Your task to perform on an android device: Search for Mexican restaurants on Maps Image 0: 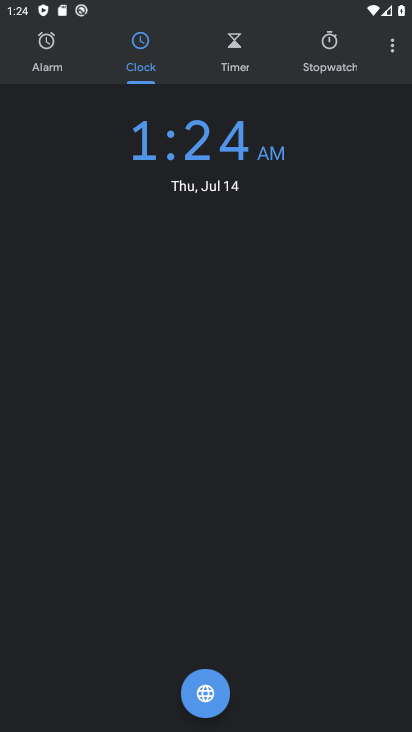
Step 0: press home button
Your task to perform on an android device: Search for Mexican restaurants on Maps Image 1: 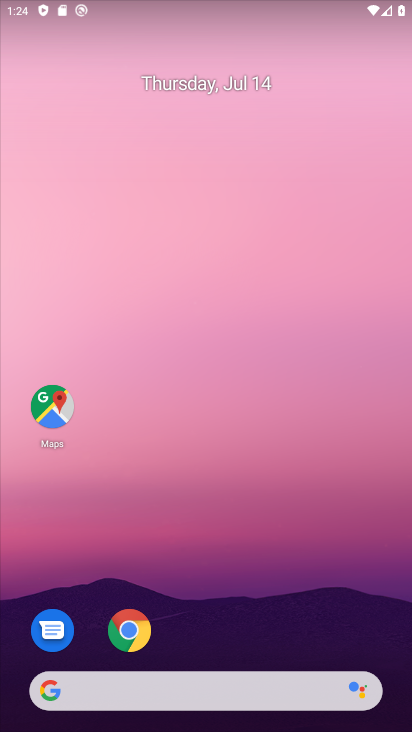
Step 1: click (50, 398)
Your task to perform on an android device: Search for Mexican restaurants on Maps Image 2: 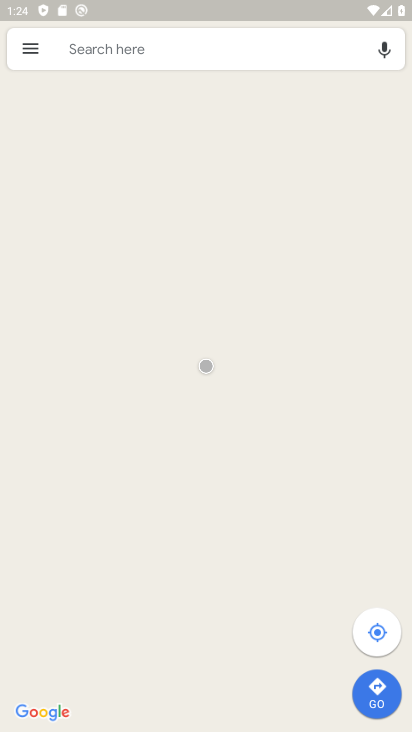
Step 2: click (239, 61)
Your task to perform on an android device: Search for Mexican restaurants on Maps Image 3: 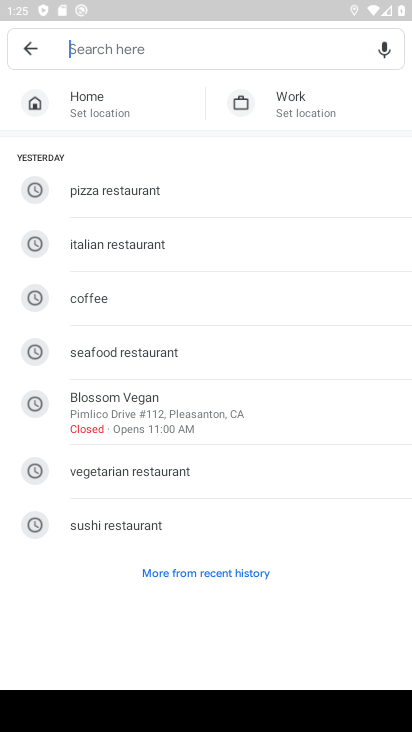
Step 3: type "mexican restaurants"
Your task to perform on an android device: Search for Mexican restaurants on Maps Image 4: 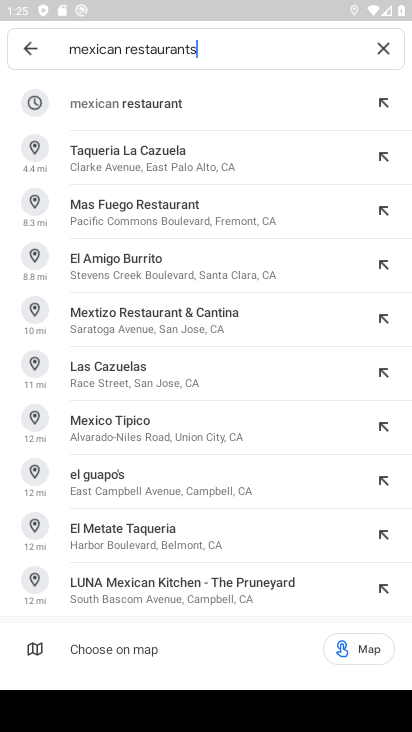
Step 4: click (158, 101)
Your task to perform on an android device: Search for Mexican restaurants on Maps Image 5: 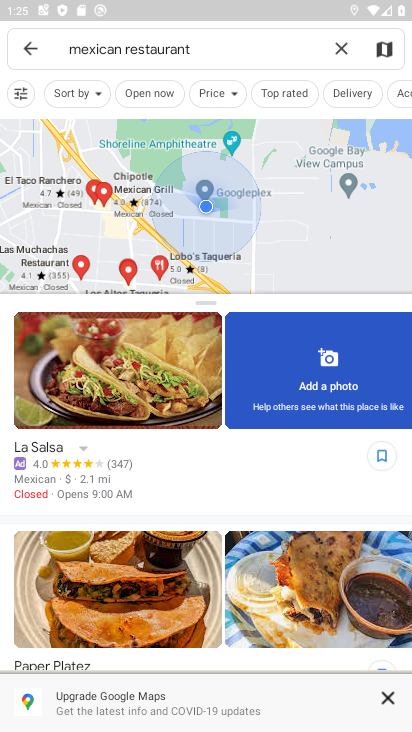
Step 5: task complete